Your task to perform on an android device: turn off data saver in the chrome app Image 0: 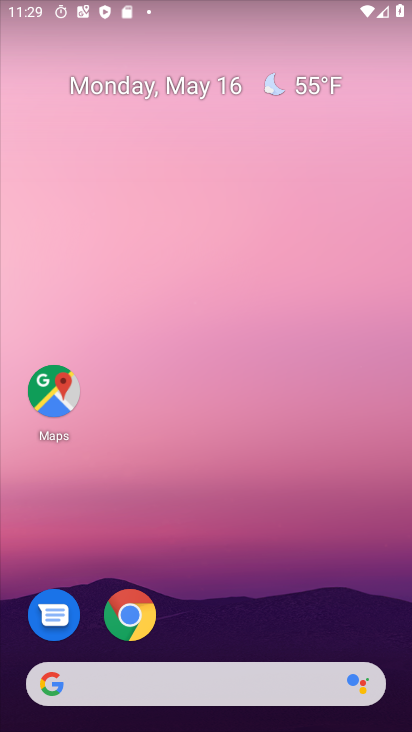
Step 0: press home button
Your task to perform on an android device: turn off data saver in the chrome app Image 1: 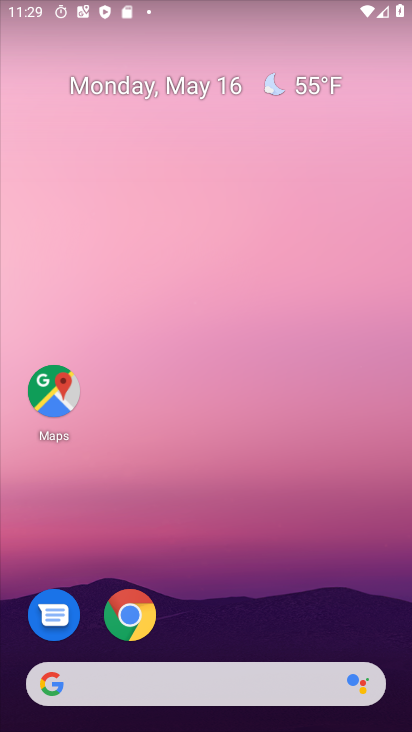
Step 1: click (117, 613)
Your task to perform on an android device: turn off data saver in the chrome app Image 2: 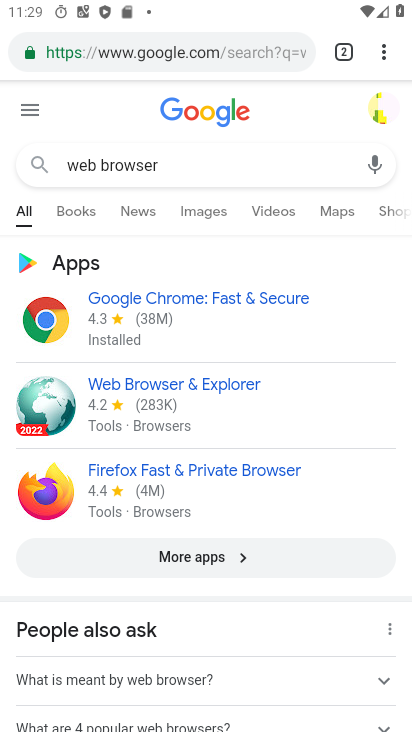
Step 2: drag from (388, 47) to (186, 575)
Your task to perform on an android device: turn off data saver in the chrome app Image 3: 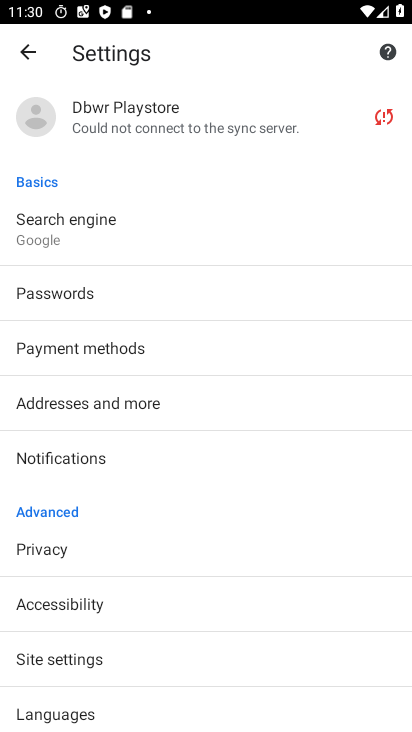
Step 3: drag from (155, 636) to (206, 143)
Your task to perform on an android device: turn off data saver in the chrome app Image 4: 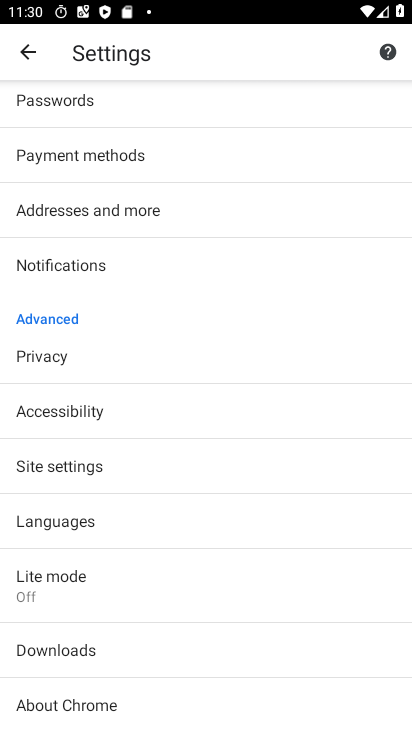
Step 4: click (178, 593)
Your task to perform on an android device: turn off data saver in the chrome app Image 5: 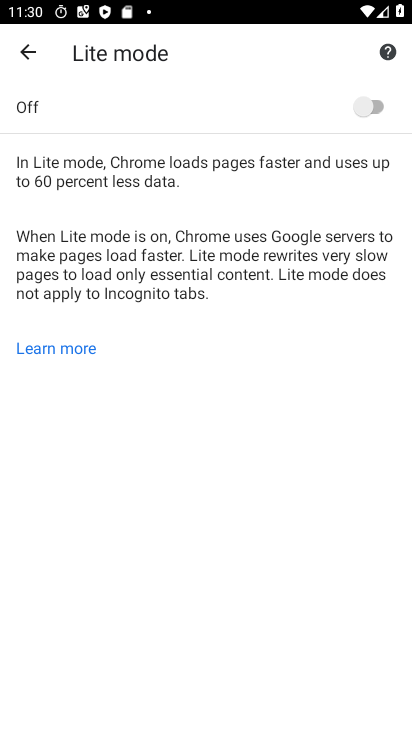
Step 5: click (358, 108)
Your task to perform on an android device: turn off data saver in the chrome app Image 6: 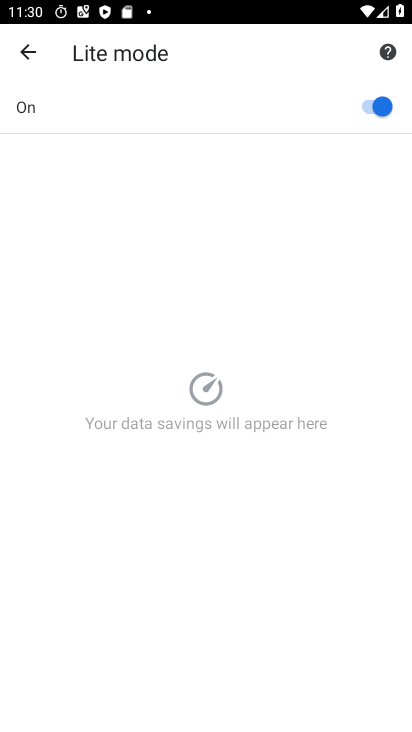
Step 6: click (358, 108)
Your task to perform on an android device: turn off data saver in the chrome app Image 7: 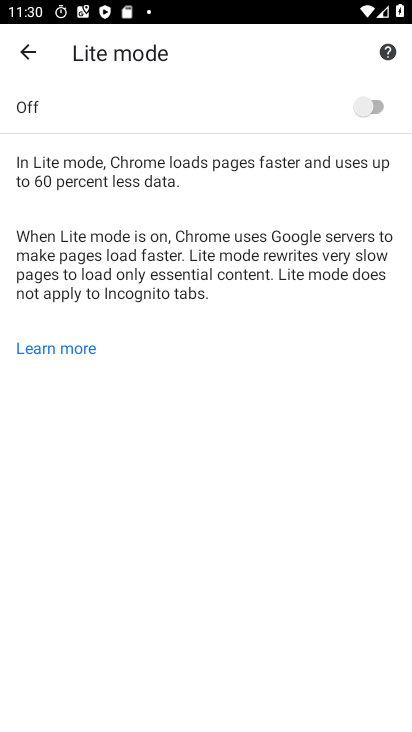
Step 7: task complete